Your task to perform on an android device: change notification settings in the gmail app Image 0: 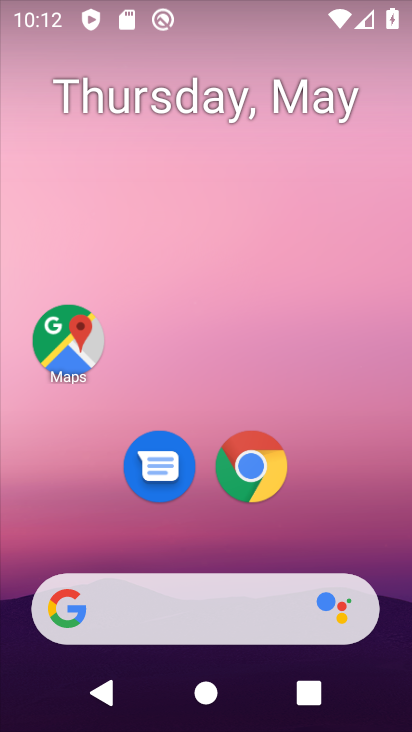
Step 0: drag from (366, 485) to (324, 0)
Your task to perform on an android device: change notification settings in the gmail app Image 1: 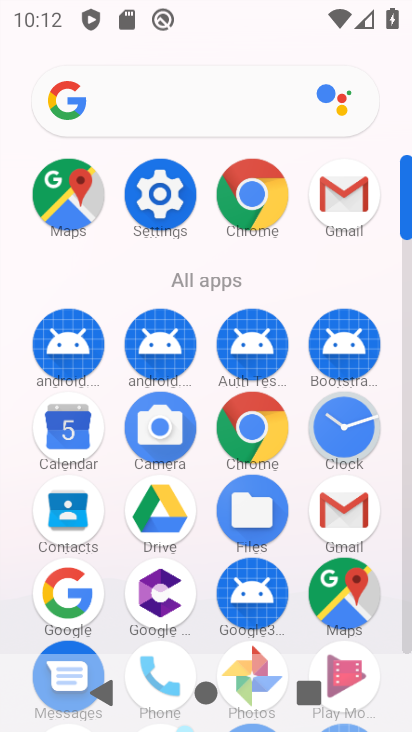
Step 1: click (341, 187)
Your task to perform on an android device: change notification settings in the gmail app Image 2: 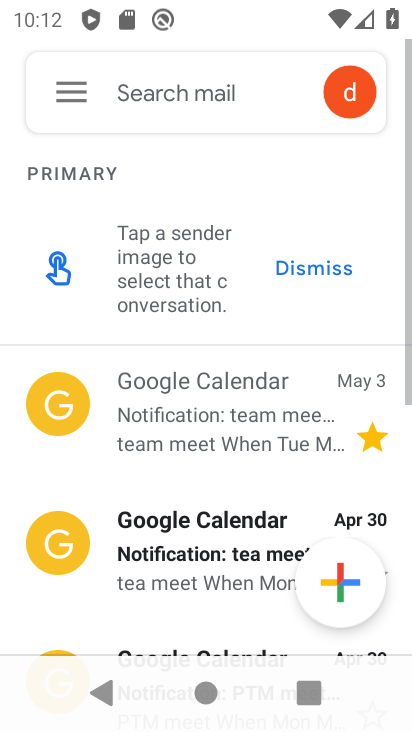
Step 2: click (77, 88)
Your task to perform on an android device: change notification settings in the gmail app Image 3: 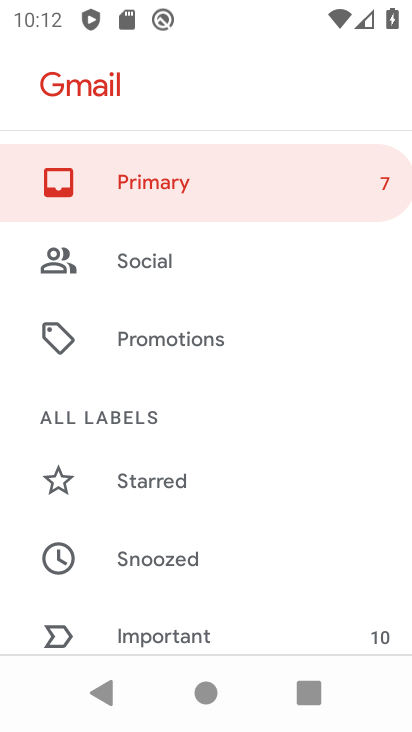
Step 3: drag from (212, 608) to (191, 71)
Your task to perform on an android device: change notification settings in the gmail app Image 4: 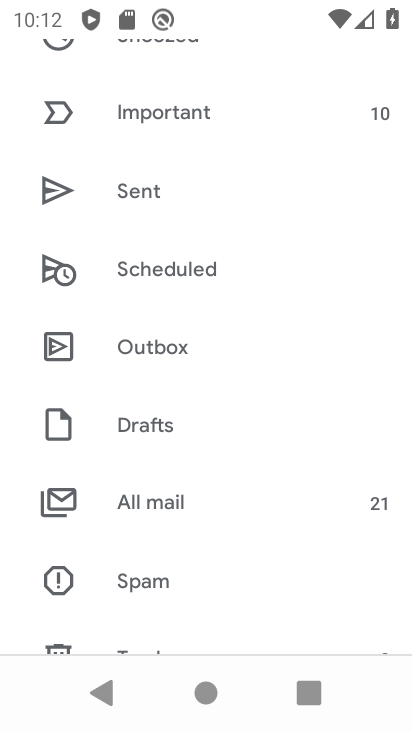
Step 4: drag from (218, 552) to (176, 94)
Your task to perform on an android device: change notification settings in the gmail app Image 5: 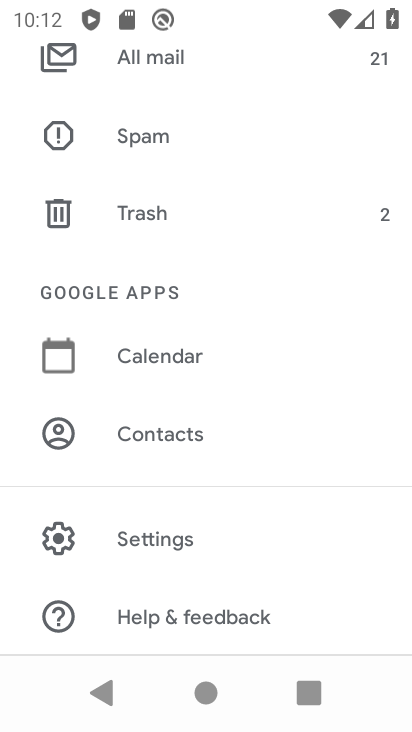
Step 5: click (214, 532)
Your task to perform on an android device: change notification settings in the gmail app Image 6: 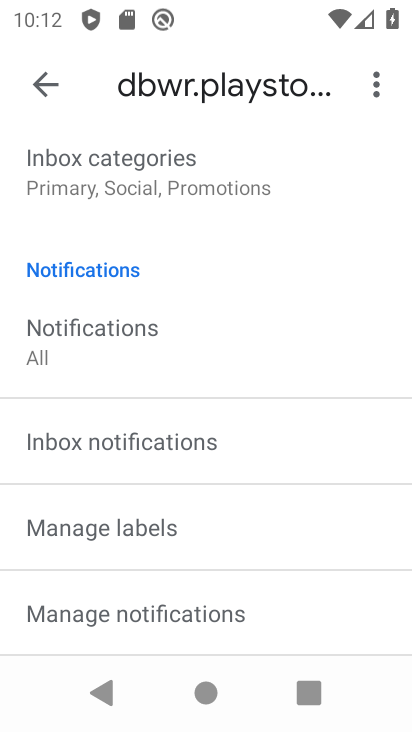
Step 6: drag from (177, 592) to (159, 149)
Your task to perform on an android device: change notification settings in the gmail app Image 7: 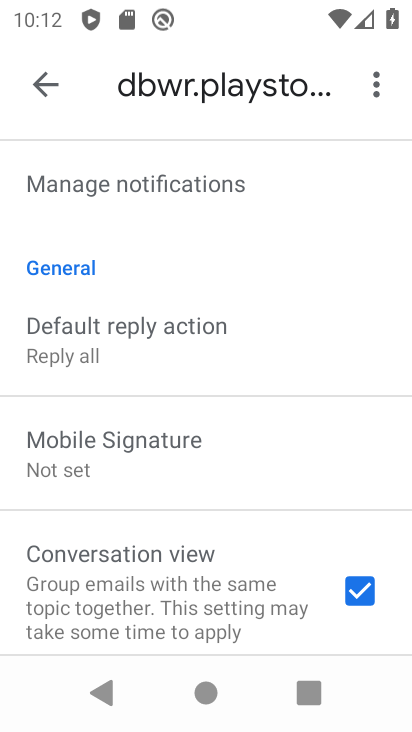
Step 7: click (169, 162)
Your task to perform on an android device: change notification settings in the gmail app Image 8: 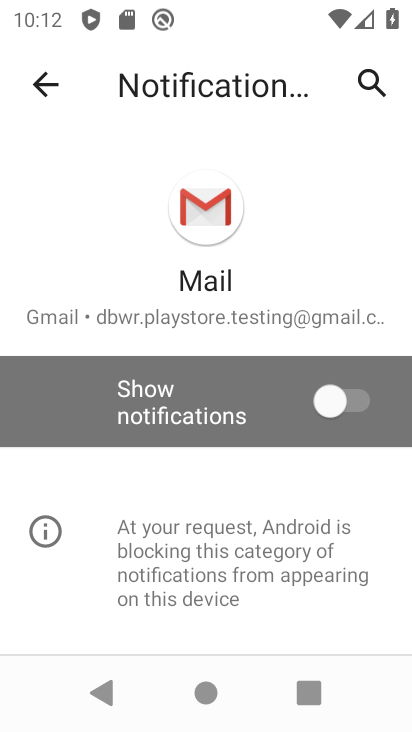
Step 8: click (343, 388)
Your task to perform on an android device: change notification settings in the gmail app Image 9: 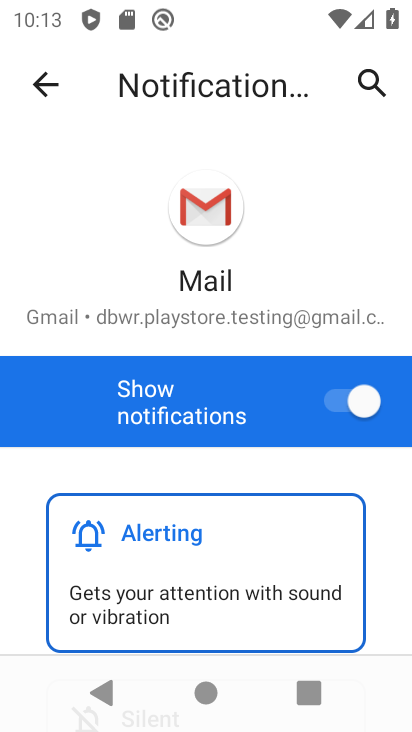
Step 9: task complete